Your task to perform on an android device: Go to network settings Image 0: 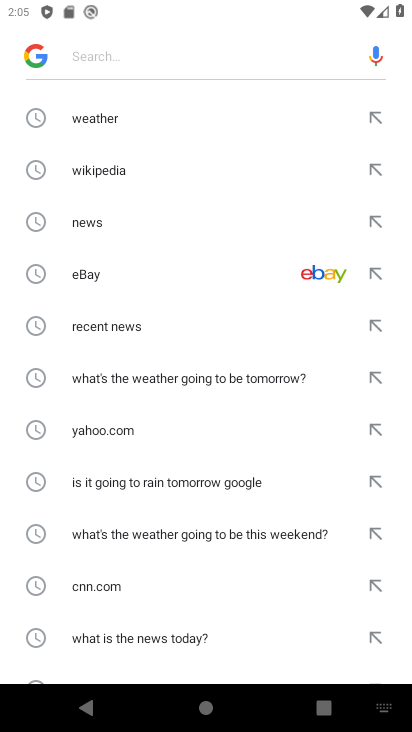
Step 0: press home button
Your task to perform on an android device: Go to network settings Image 1: 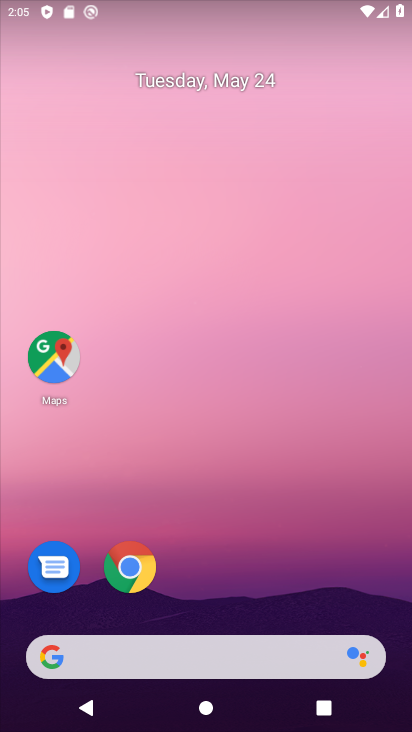
Step 1: drag from (235, 551) to (321, 27)
Your task to perform on an android device: Go to network settings Image 2: 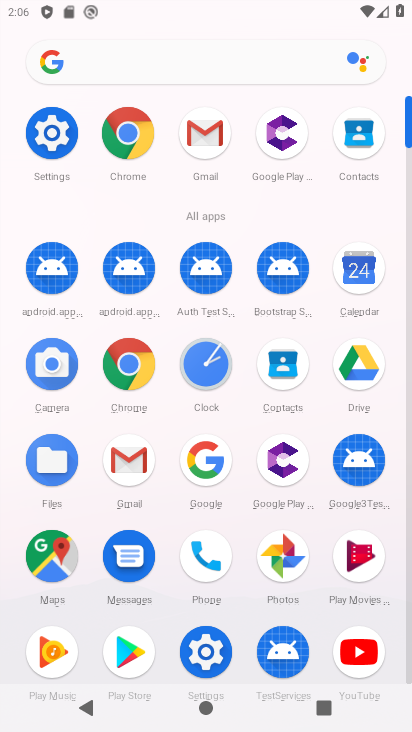
Step 2: click (43, 147)
Your task to perform on an android device: Go to network settings Image 3: 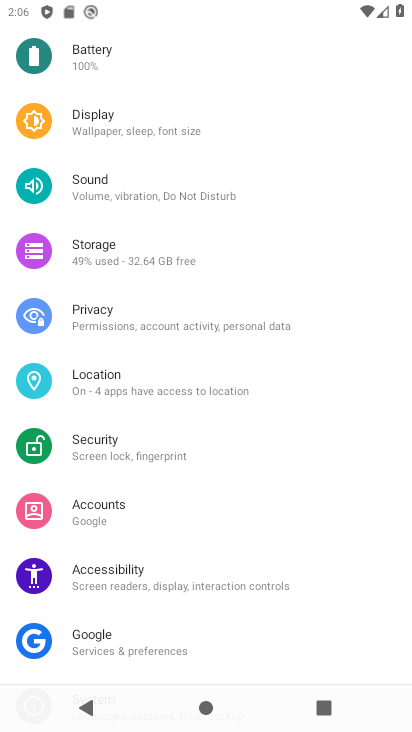
Step 3: drag from (232, 100) to (193, 660)
Your task to perform on an android device: Go to network settings Image 4: 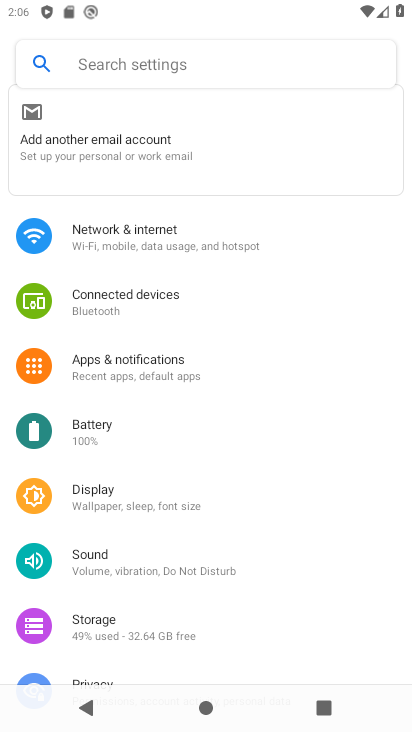
Step 4: click (175, 234)
Your task to perform on an android device: Go to network settings Image 5: 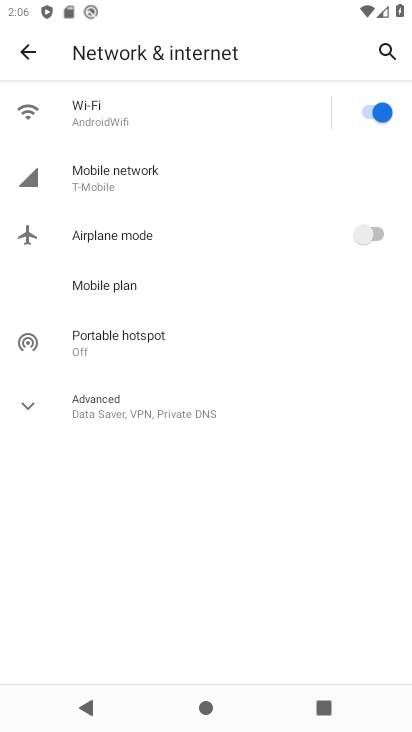
Step 5: task complete